Your task to perform on an android device: open device folders in google photos Image 0: 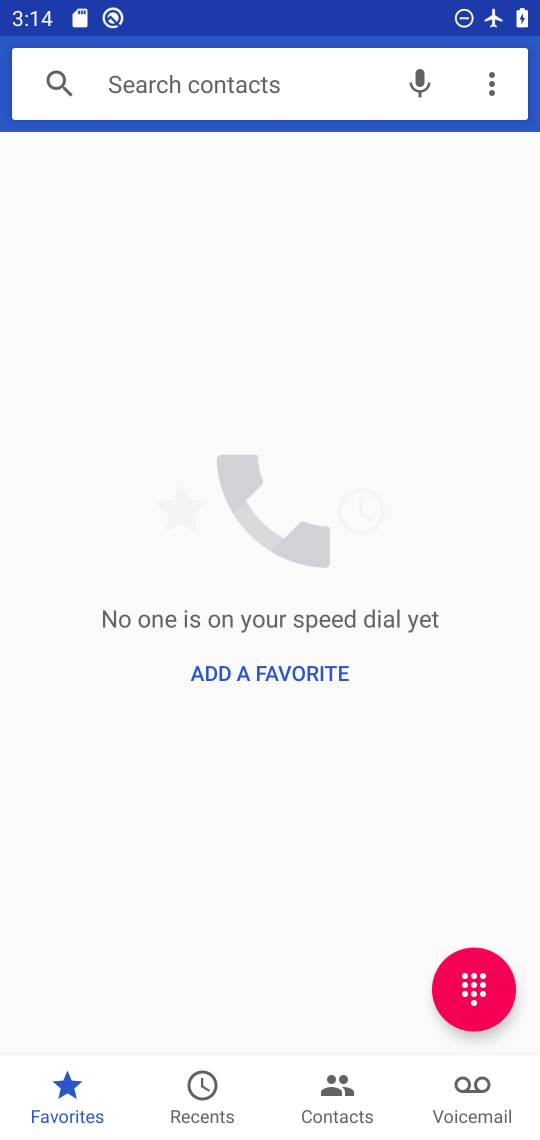
Step 0: press home button
Your task to perform on an android device: open device folders in google photos Image 1: 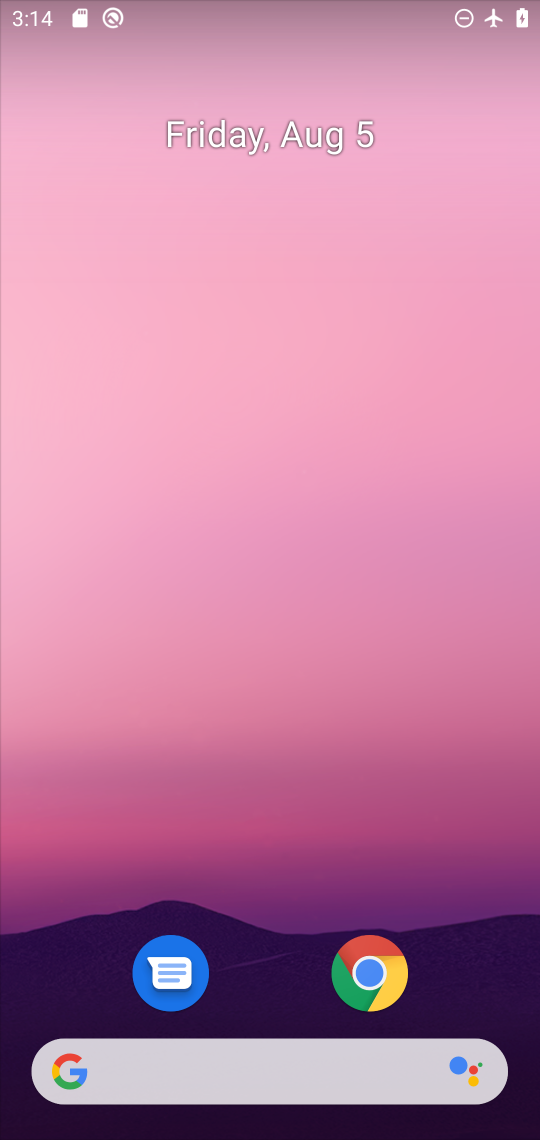
Step 1: drag from (289, 298) to (289, 163)
Your task to perform on an android device: open device folders in google photos Image 2: 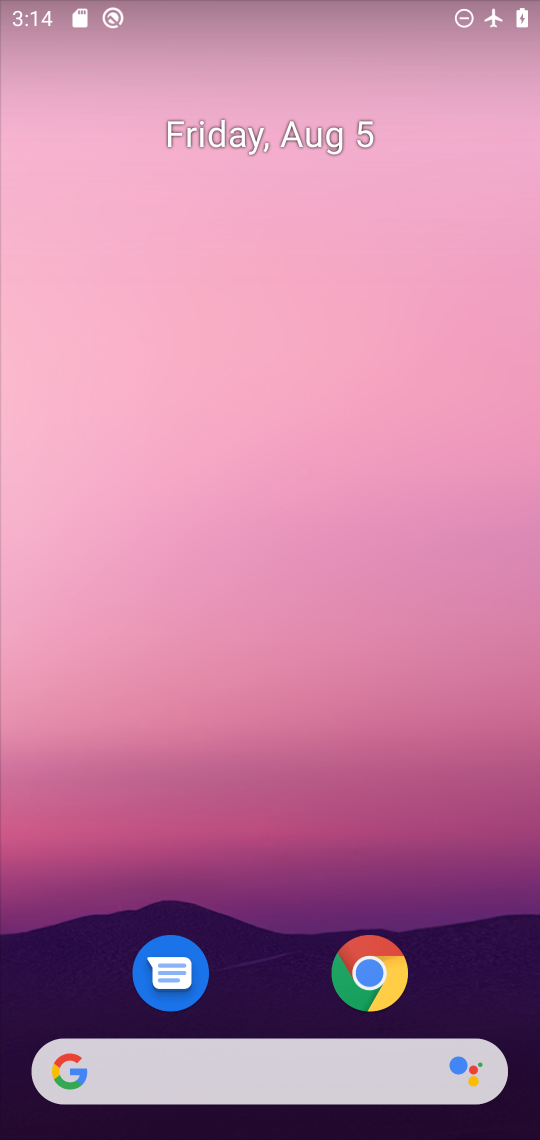
Step 2: drag from (314, 972) to (196, 218)
Your task to perform on an android device: open device folders in google photos Image 3: 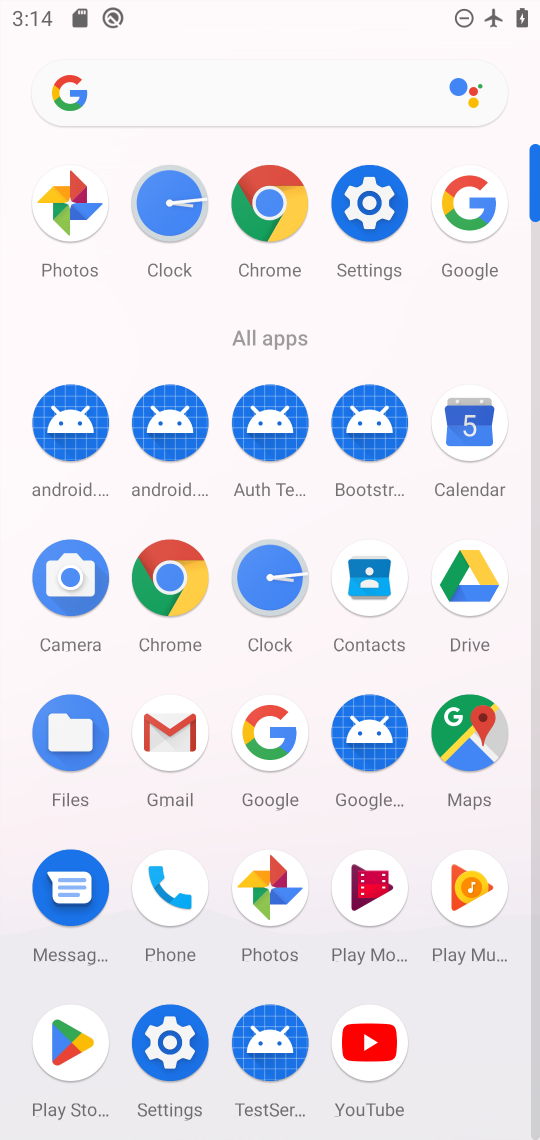
Step 3: click (294, 894)
Your task to perform on an android device: open device folders in google photos Image 4: 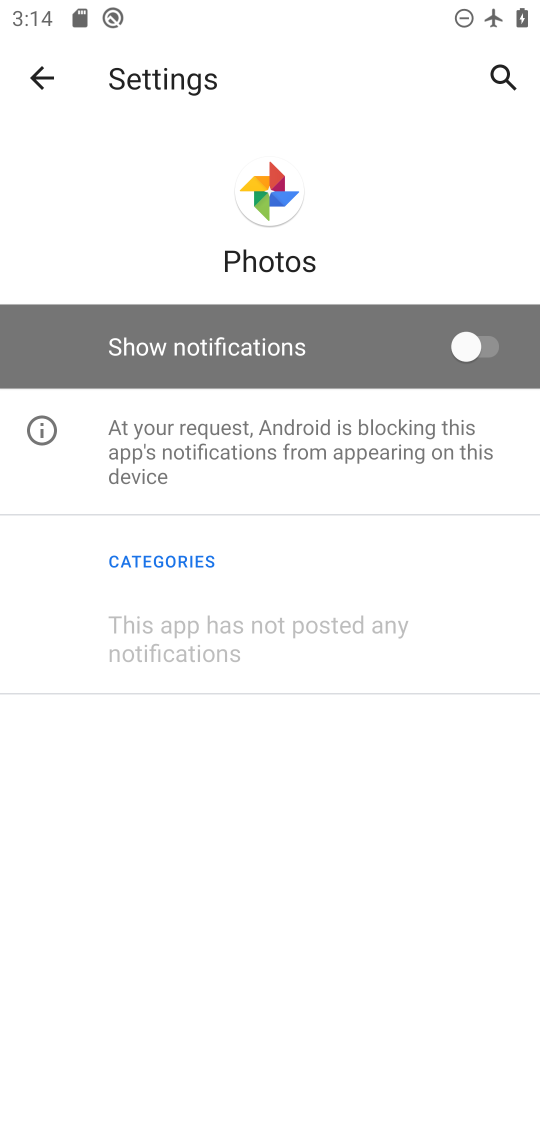
Step 4: click (26, 72)
Your task to perform on an android device: open device folders in google photos Image 5: 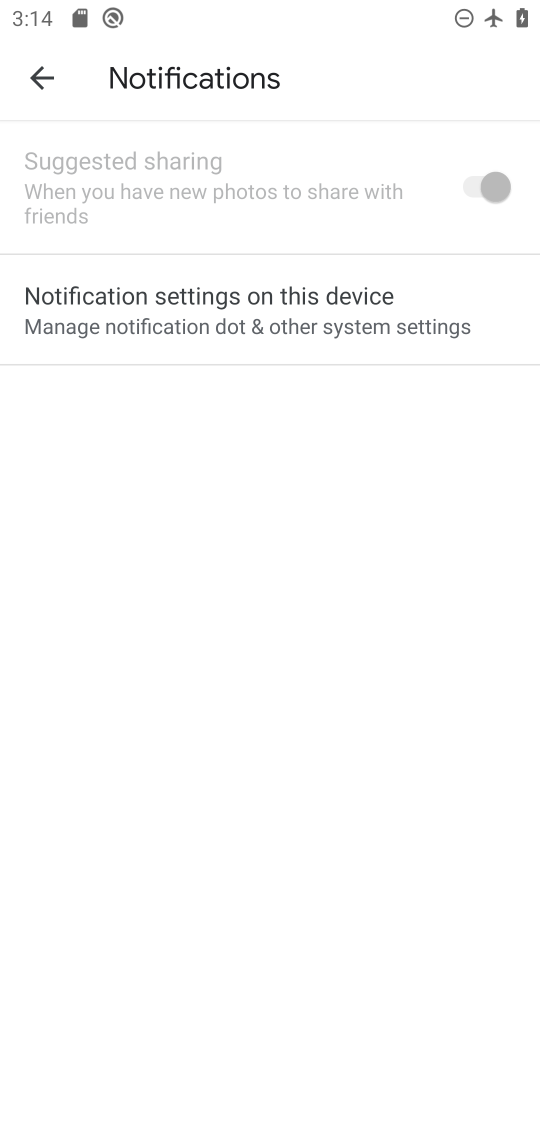
Step 5: click (68, 60)
Your task to perform on an android device: open device folders in google photos Image 6: 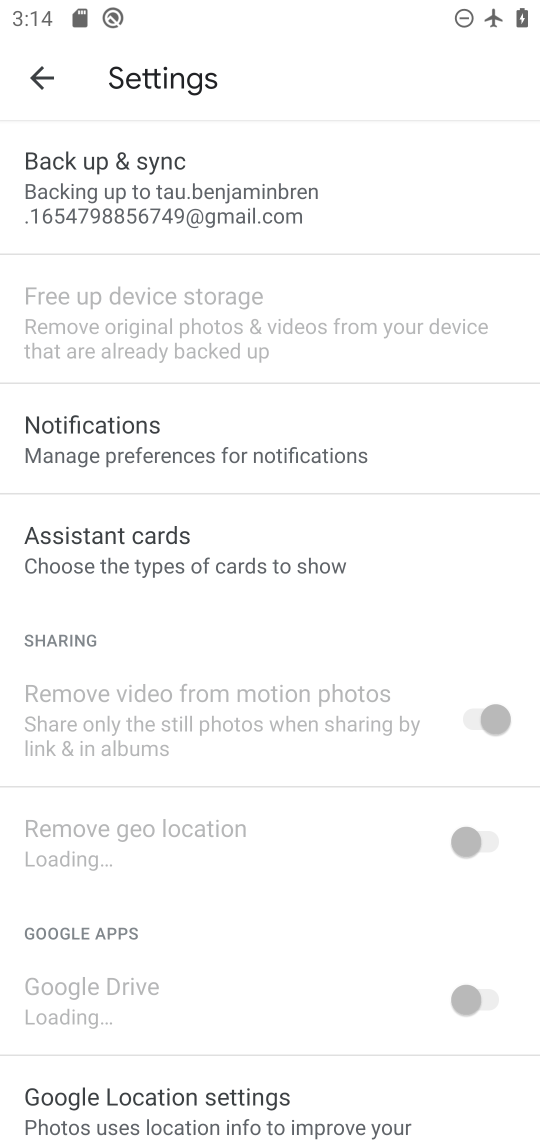
Step 6: click (25, 86)
Your task to perform on an android device: open device folders in google photos Image 7: 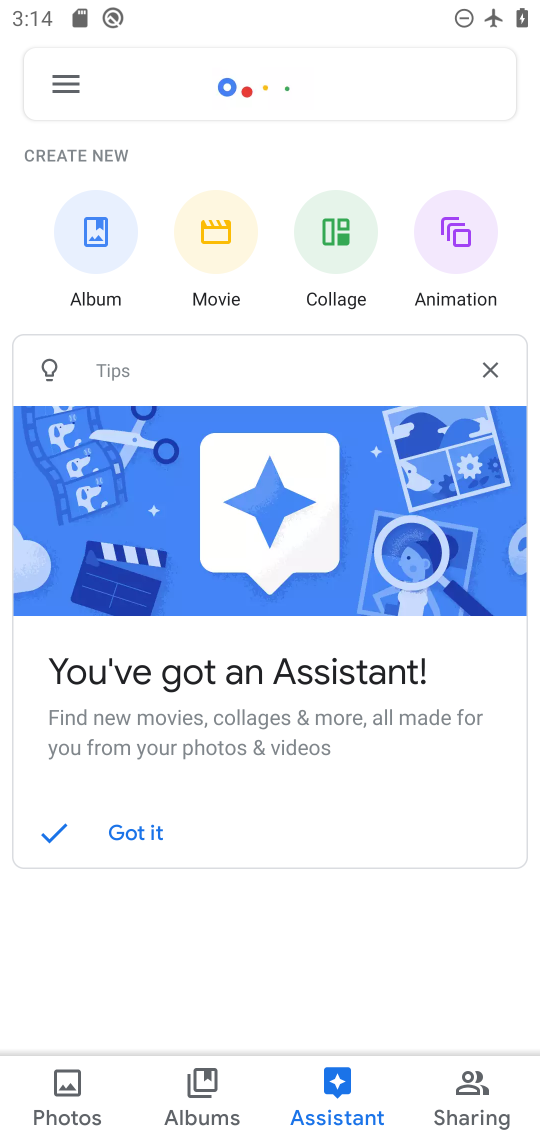
Step 7: click (67, 1103)
Your task to perform on an android device: open device folders in google photos Image 8: 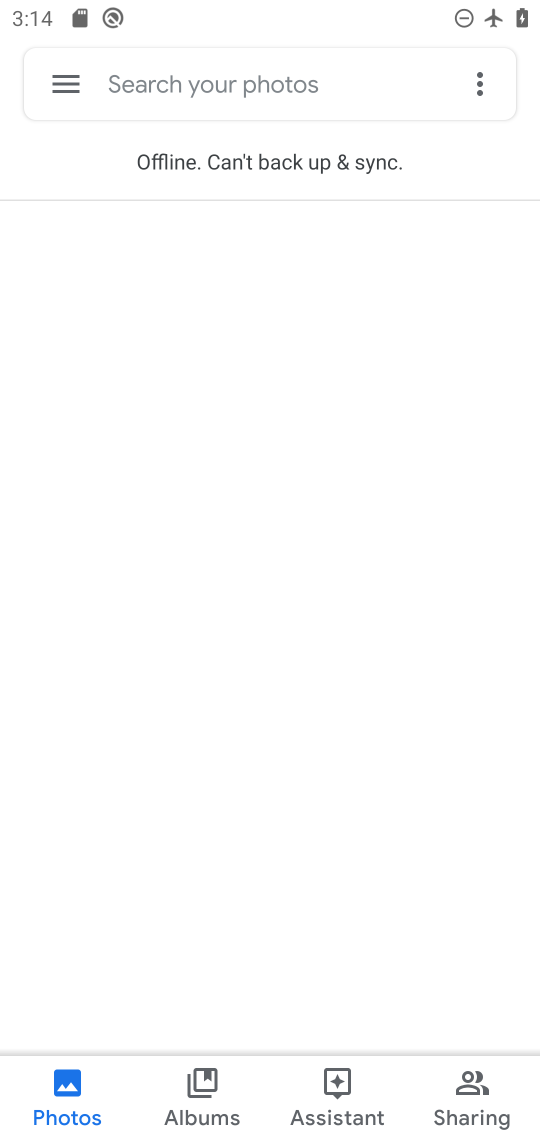
Step 8: click (53, 87)
Your task to perform on an android device: open device folders in google photos Image 9: 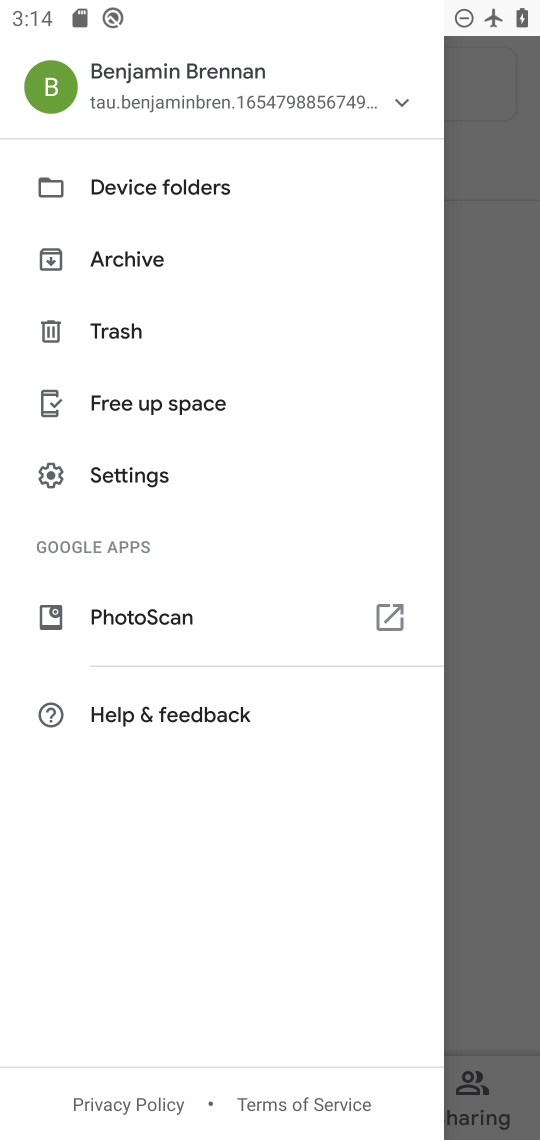
Step 9: click (91, 190)
Your task to perform on an android device: open device folders in google photos Image 10: 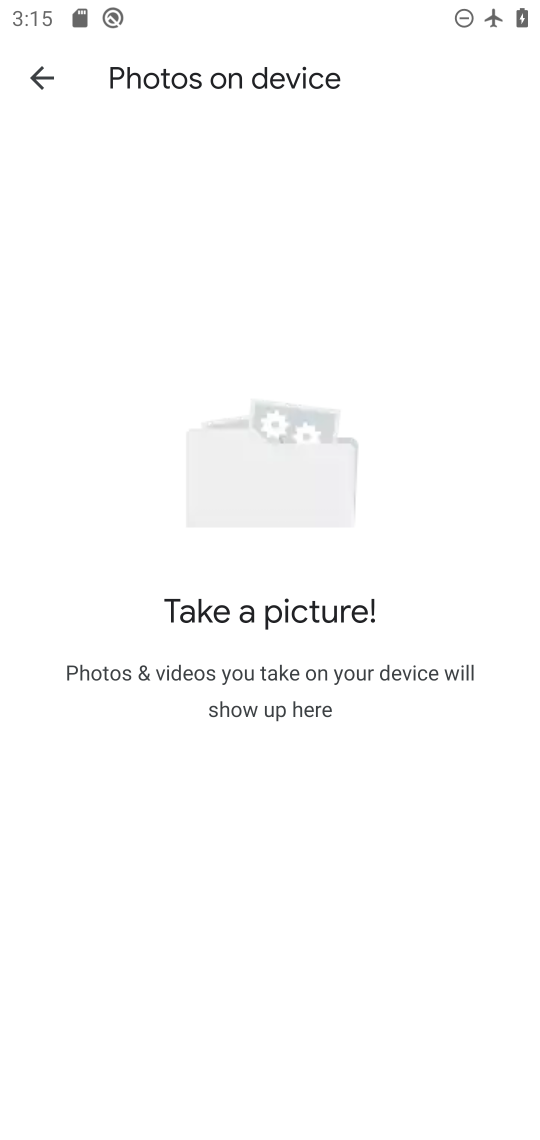
Step 10: task complete